Your task to perform on an android device: Go to wifi settings Image 0: 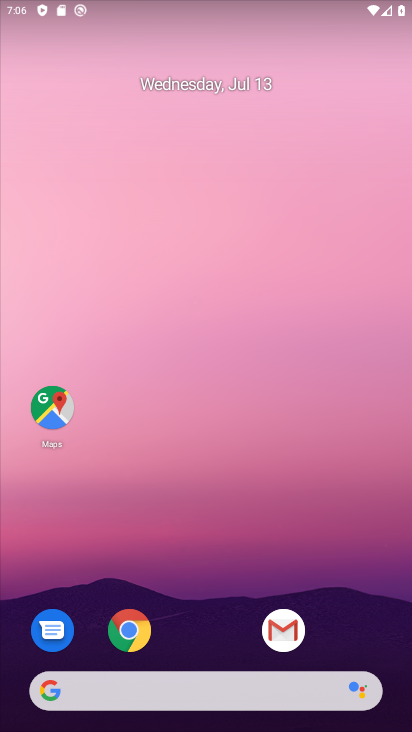
Step 0: drag from (219, 711) to (296, 163)
Your task to perform on an android device: Go to wifi settings Image 1: 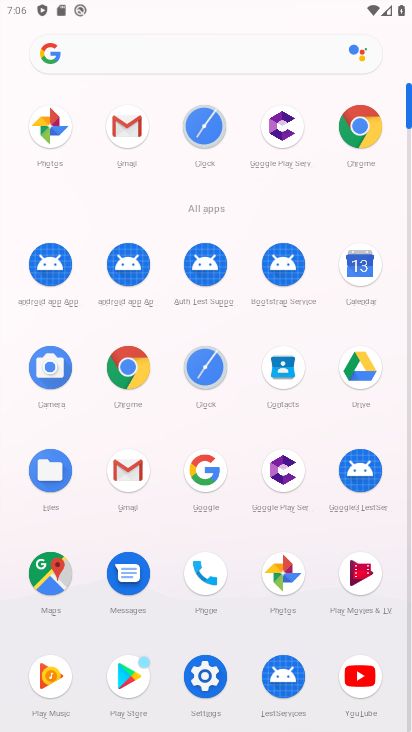
Step 1: click (205, 666)
Your task to perform on an android device: Go to wifi settings Image 2: 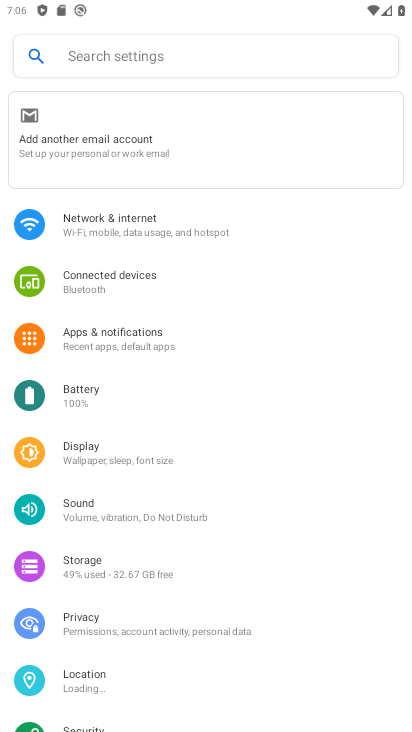
Step 2: click (120, 239)
Your task to perform on an android device: Go to wifi settings Image 3: 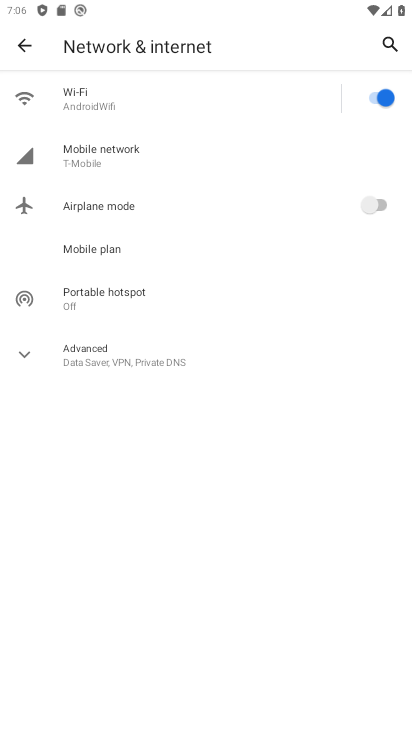
Step 3: click (120, 109)
Your task to perform on an android device: Go to wifi settings Image 4: 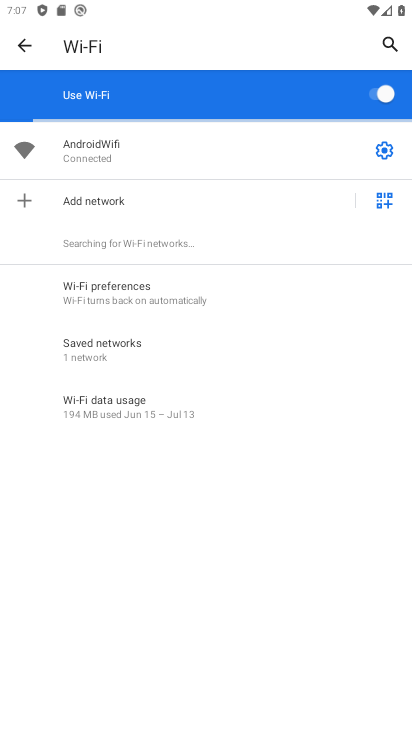
Step 4: task complete